Your task to perform on an android device: turn on the 12-hour format for clock Image 0: 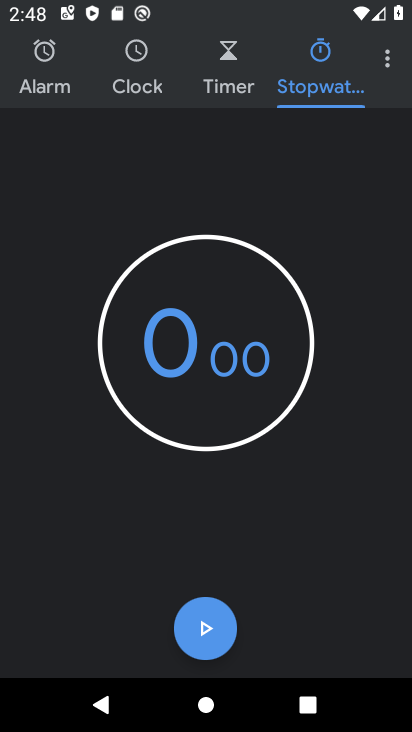
Step 0: click (392, 60)
Your task to perform on an android device: turn on the 12-hour format for clock Image 1: 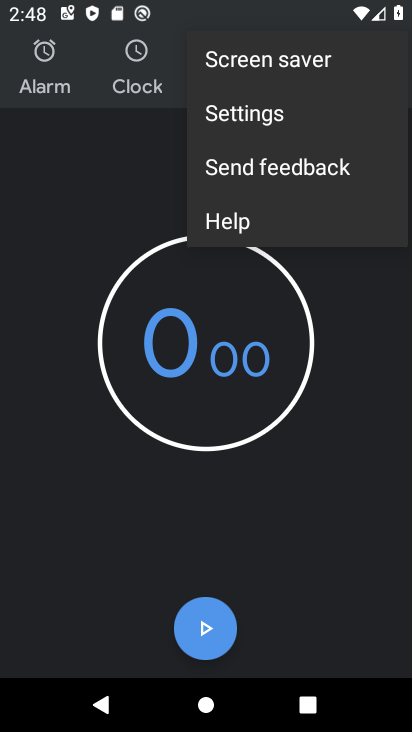
Step 1: click (312, 116)
Your task to perform on an android device: turn on the 12-hour format for clock Image 2: 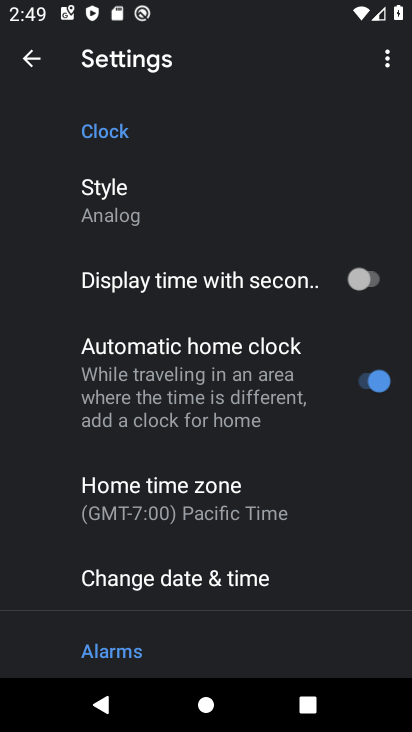
Step 2: click (269, 568)
Your task to perform on an android device: turn on the 12-hour format for clock Image 3: 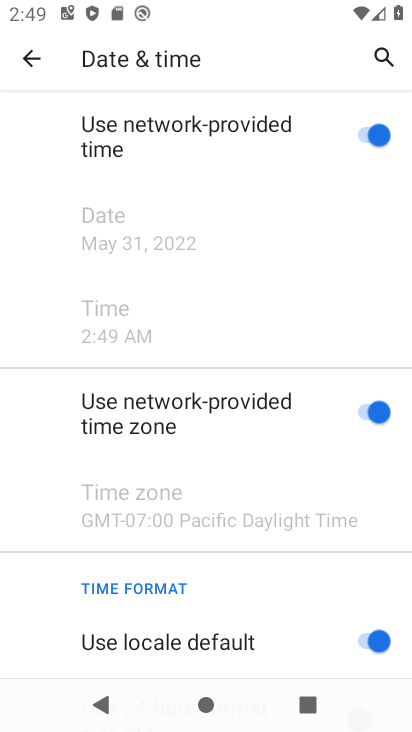
Step 3: task complete